Your task to perform on an android device: Go to Google Image 0: 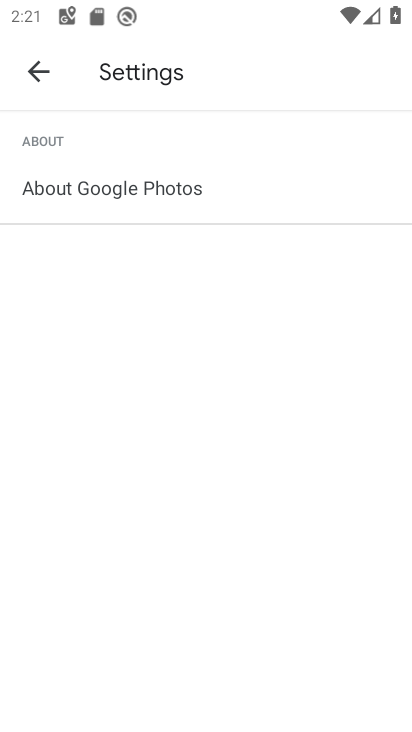
Step 0: press home button
Your task to perform on an android device: Go to Google Image 1: 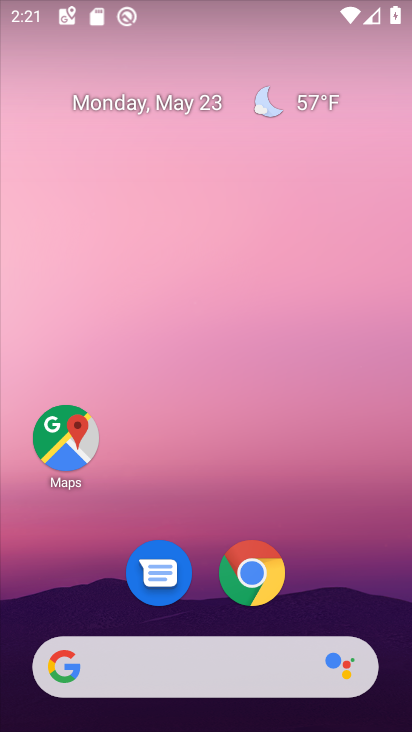
Step 1: drag from (317, 591) to (318, 107)
Your task to perform on an android device: Go to Google Image 2: 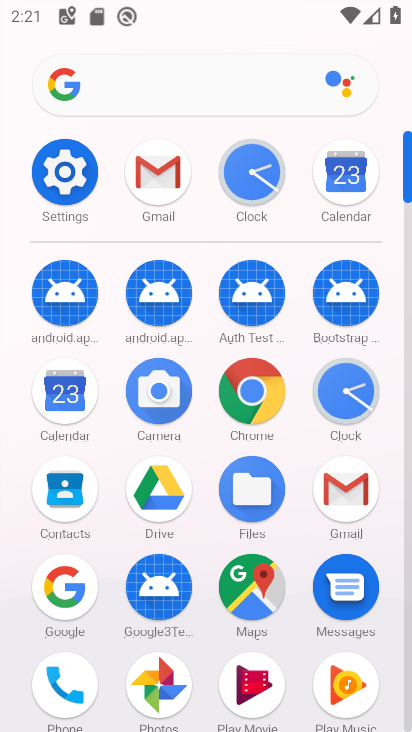
Step 2: click (63, 580)
Your task to perform on an android device: Go to Google Image 3: 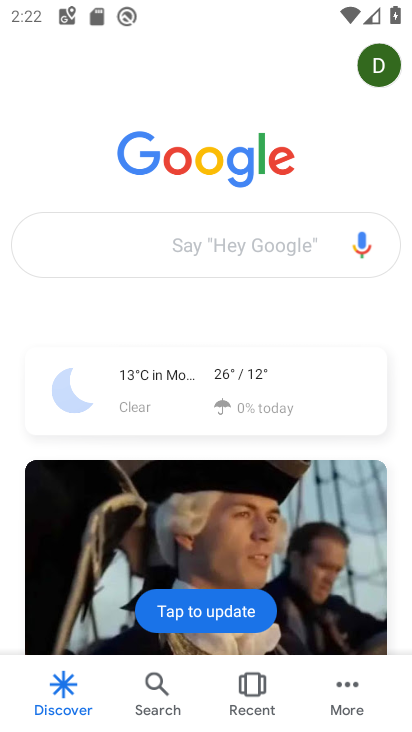
Step 3: task complete